Your task to perform on an android device: Open settings on Google Maps Image 0: 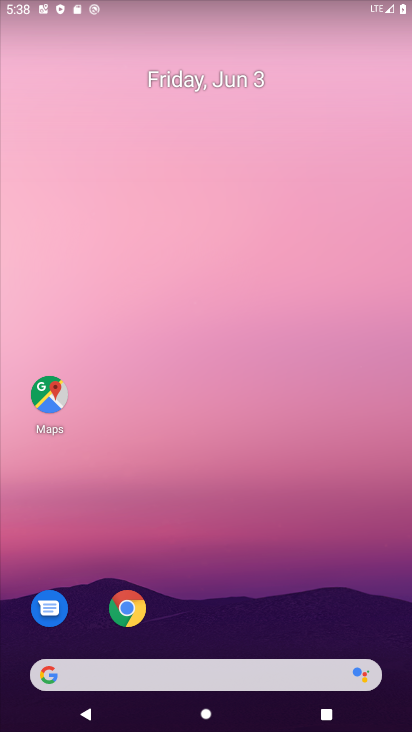
Step 0: click (32, 405)
Your task to perform on an android device: Open settings on Google Maps Image 1: 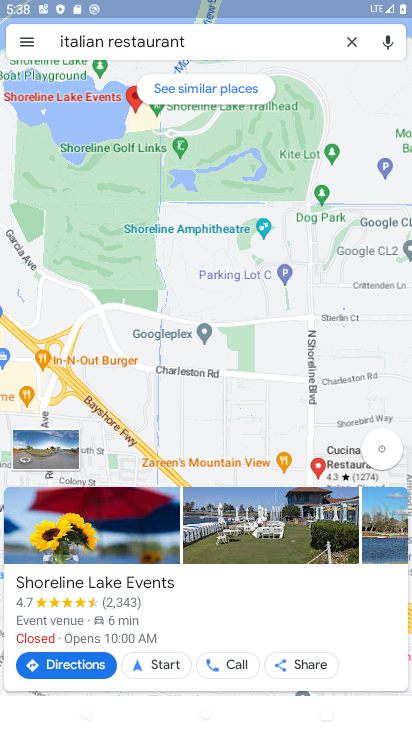
Step 1: click (16, 48)
Your task to perform on an android device: Open settings on Google Maps Image 2: 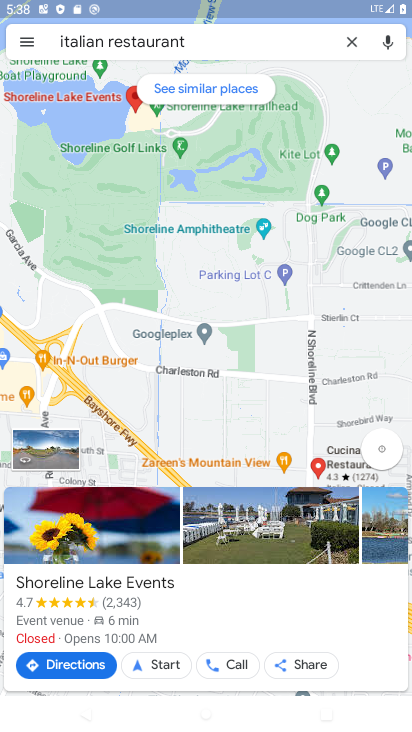
Step 2: click (26, 33)
Your task to perform on an android device: Open settings on Google Maps Image 3: 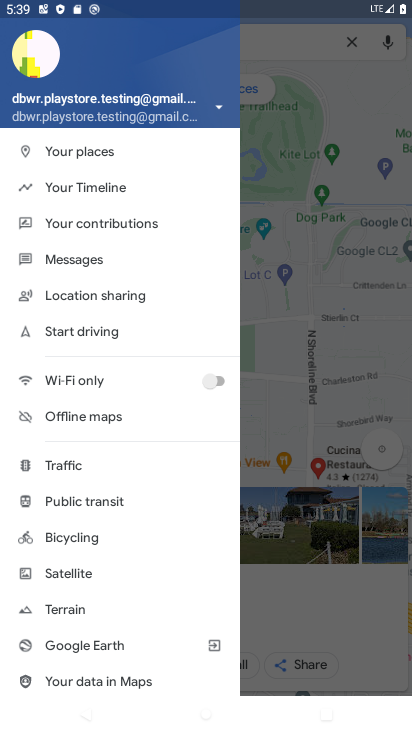
Step 3: drag from (171, 699) to (182, 454)
Your task to perform on an android device: Open settings on Google Maps Image 4: 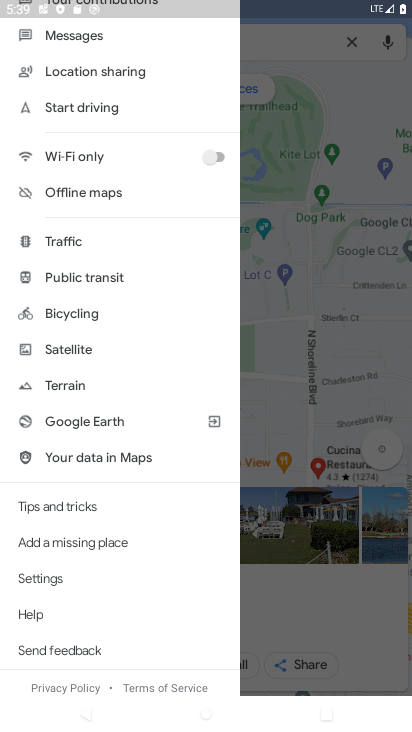
Step 4: click (55, 568)
Your task to perform on an android device: Open settings on Google Maps Image 5: 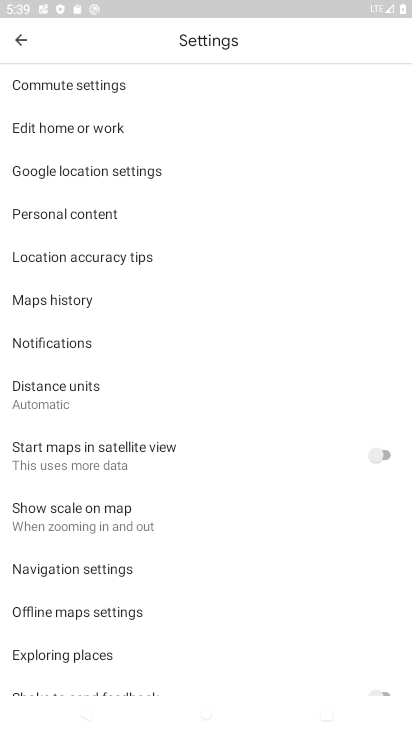
Step 5: task complete